Your task to perform on an android device: turn off translation in the chrome app Image 0: 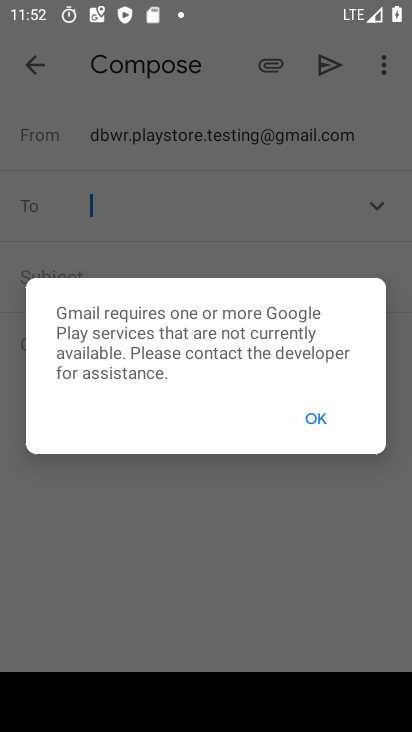
Step 0: press home button
Your task to perform on an android device: turn off translation in the chrome app Image 1: 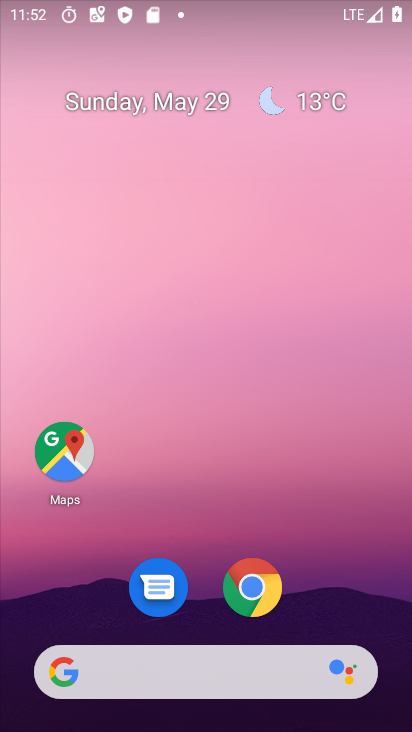
Step 1: click (258, 581)
Your task to perform on an android device: turn off translation in the chrome app Image 2: 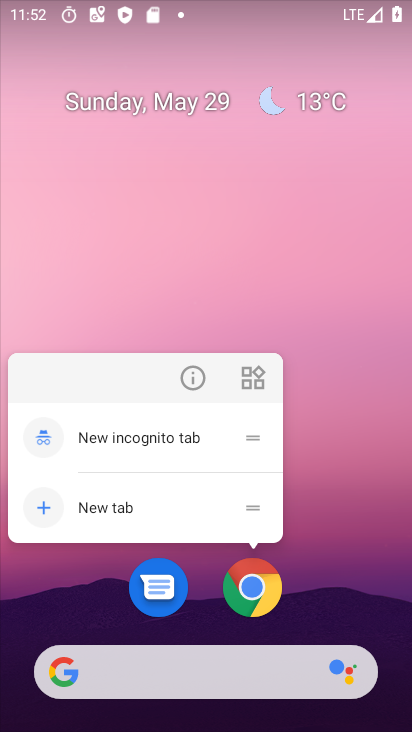
Step 2: click (253, 590)
Your task to perform on an android device: turn off translation in the chrome app Image 3: 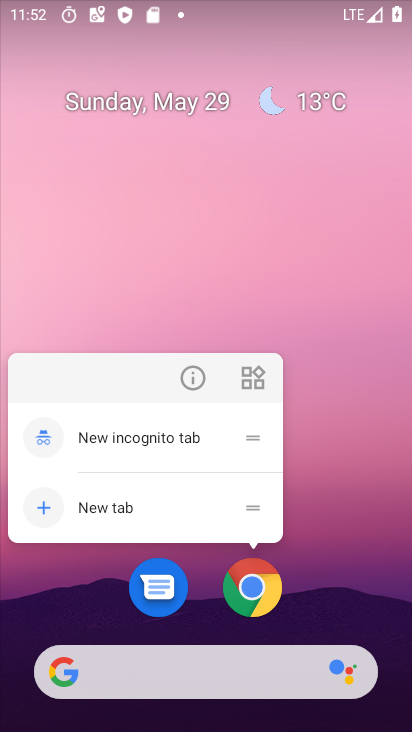
Step 3: click (264, 593)
Your task to perform on an android device: turn off translation in the chrome app Image 4: 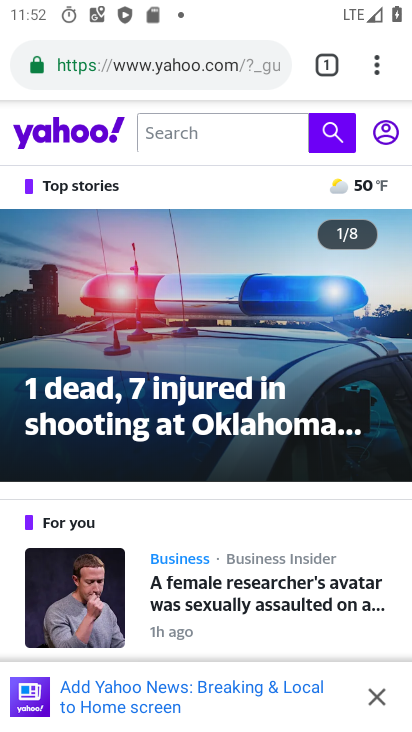
Step 4: drag from (382, 59) to (257, 634)
Your task to perform on an android device: turn off translation in the chrome app Image 5: 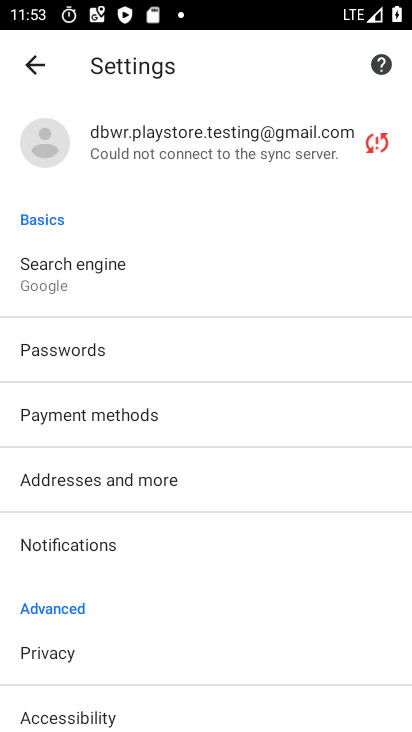
Step 5: drag from (150, 635) to (191, 178)
Your task to perform on an android device: turn off translation in the chrome app Image 6: 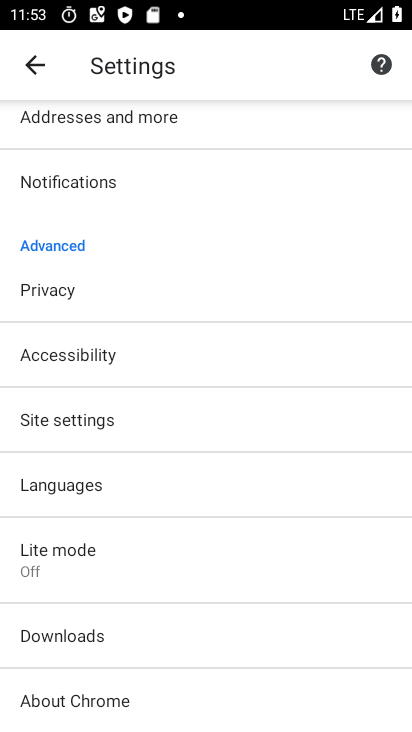
Step 6: click (89, 487)
Your task to perform on an android device: turn off translation in the chrome app Image 7: 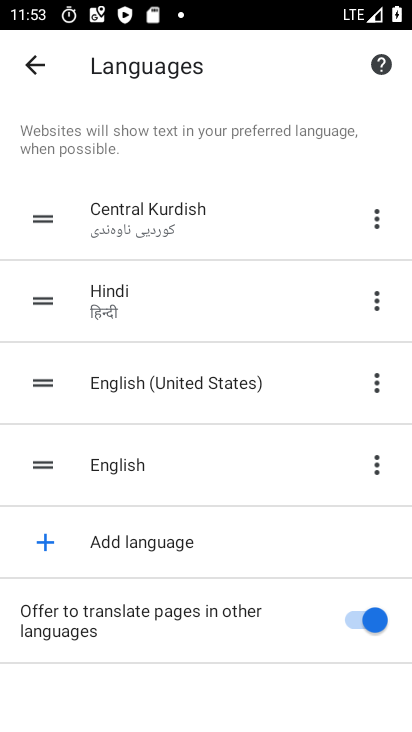
Step 7: click (373, 621)
Your task to perform on an android device: turn off translation in the chrome app Image 8: 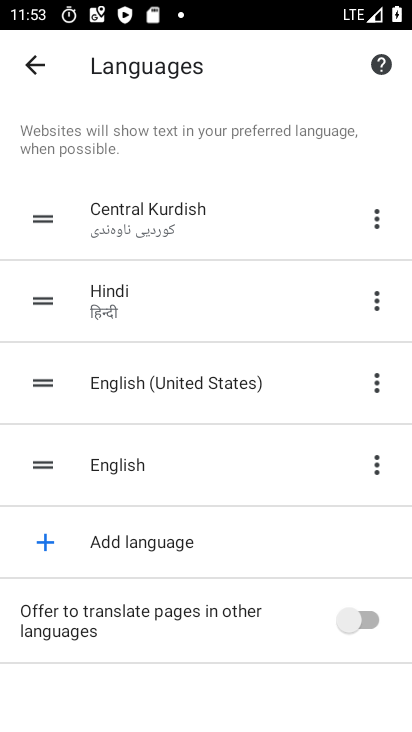
Step 8: task complete